Your task to perform on an android device: Open settings Image 0: 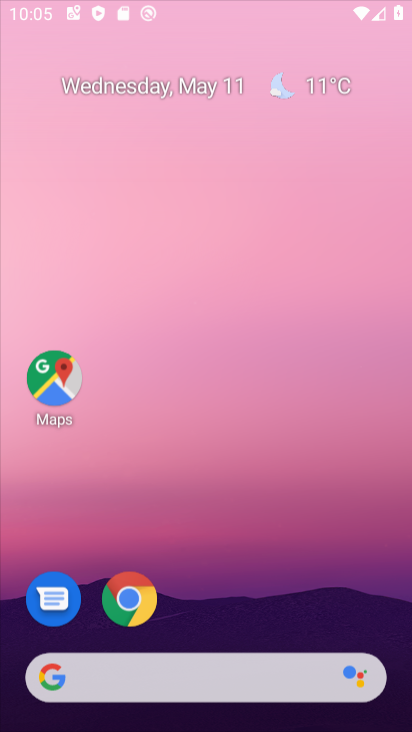
Step 0: drag from (222, 577) to (216, 320)
Your task to perform on an android device: Open settings Image 1: 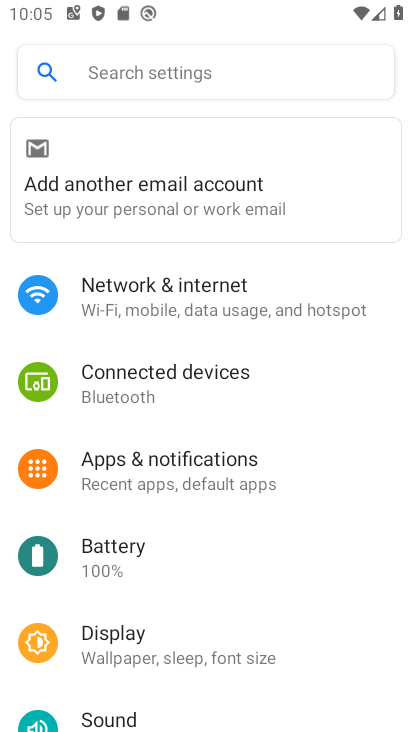
Step 1: task complete